Your task to perform on an android device: Search for seafood restaurants on Google Maps Image 0: 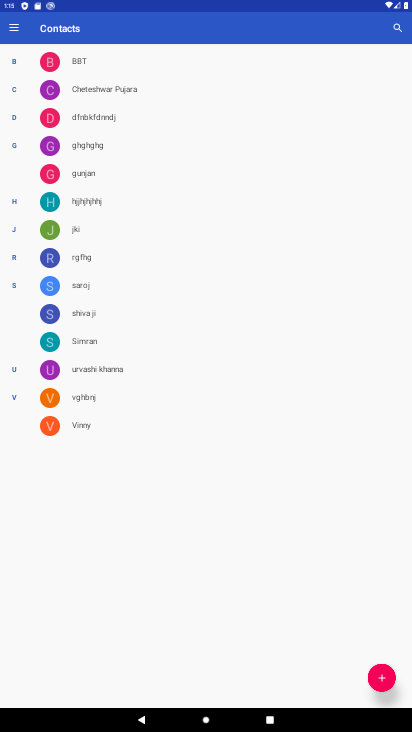
Step 0: press home button
Your task to perform on an android device: Search for seafood restaurants on Google Maps Image 1: 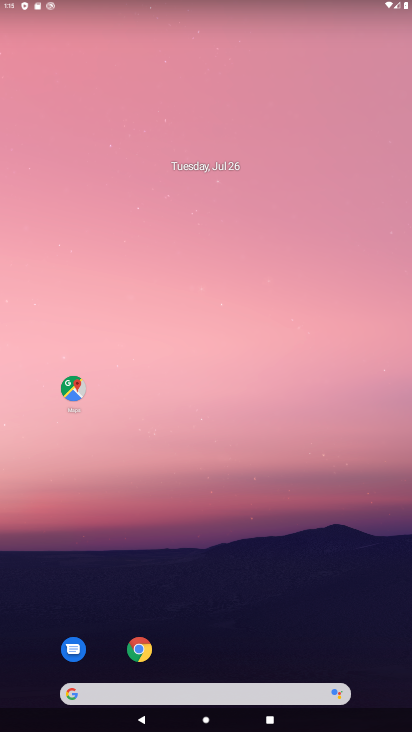
Step 1: click (70, 383)
Your task to perform on an android device: Search for seafood restaurants on Google Maps Image 2: 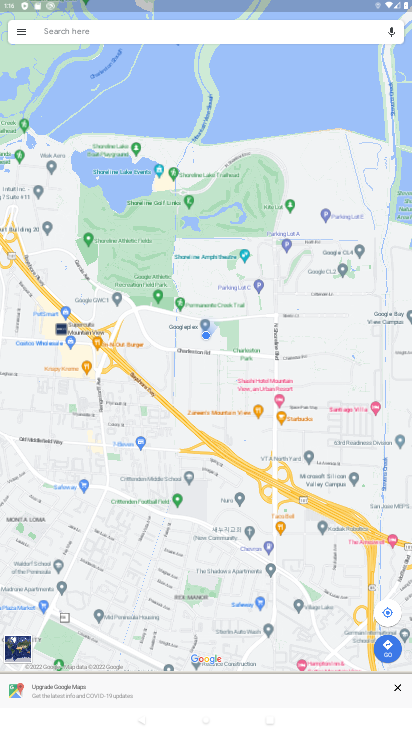
Step 2: click (88, 24)
Your task to perform on an android device: Search for seafood restaurants on Google Maps Image 3: 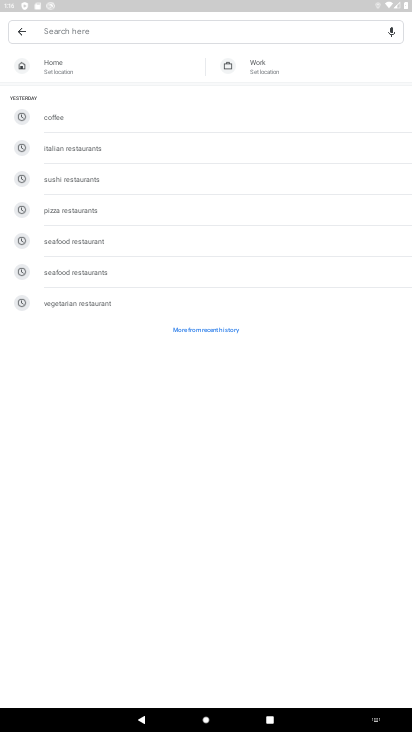
Step 3: click (64, 271)
Your task to perform on an android device: Search for seafood restaurants on Google Maps Image 4: 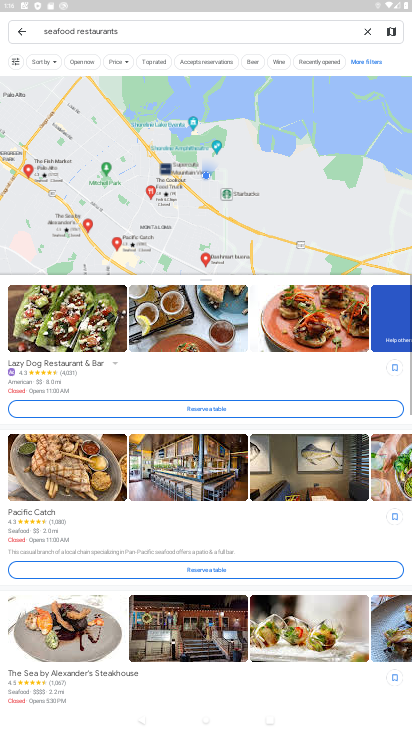
Step 4: task complete